Your task to perform on an android device: change the clock display to show seconds Image 0: 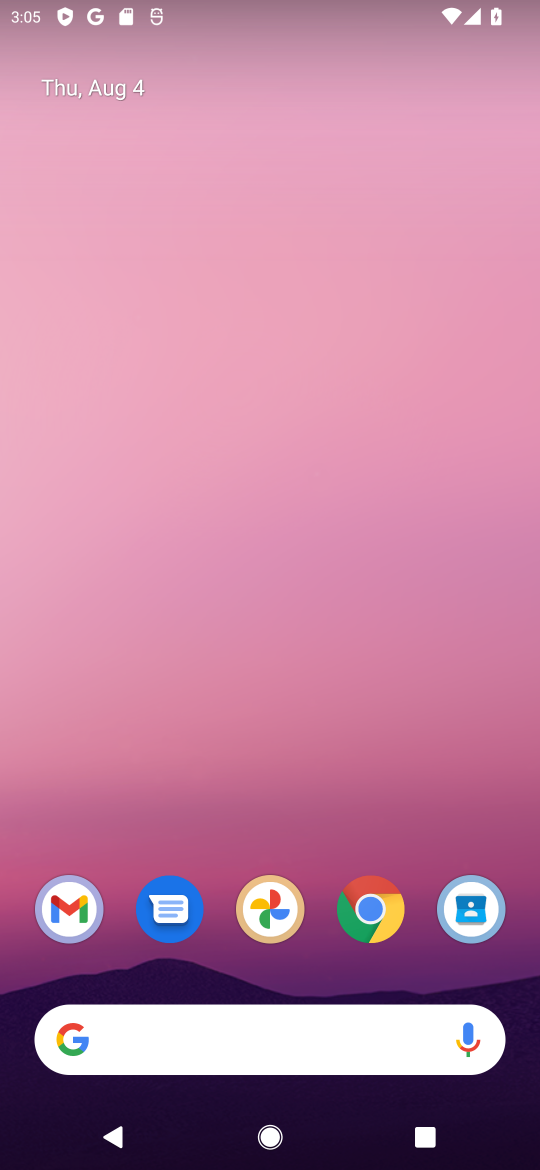
Step 0: drag from (252, 999) to (403, 154)
Your task to perform on an android device: change the clock display to show seconds Image 1: 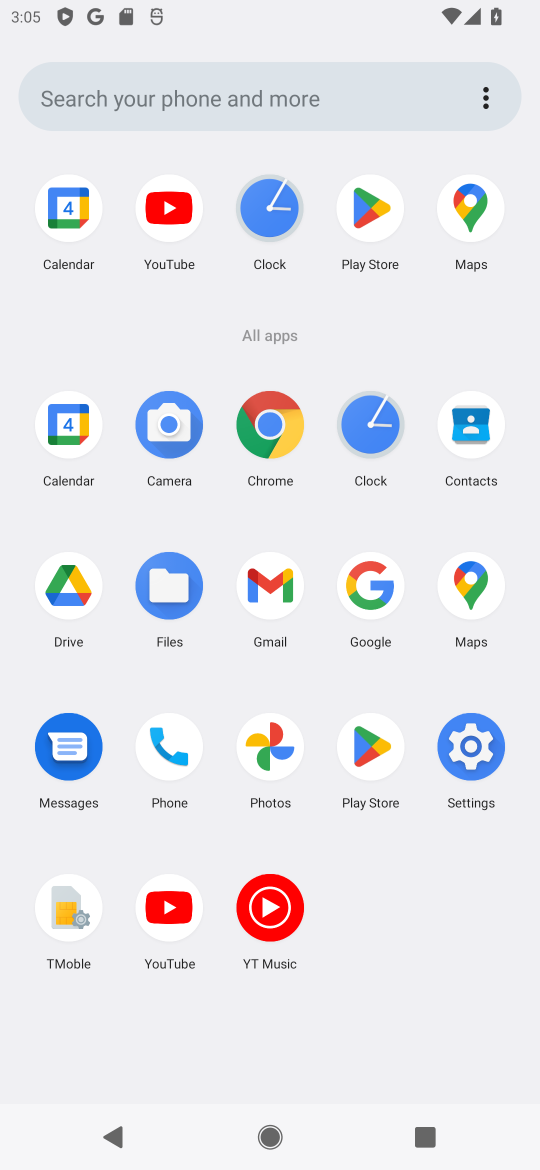
Step 1: click (267, 211)
Your task to perform on an android device: change the clock display to show seconds Image 2: 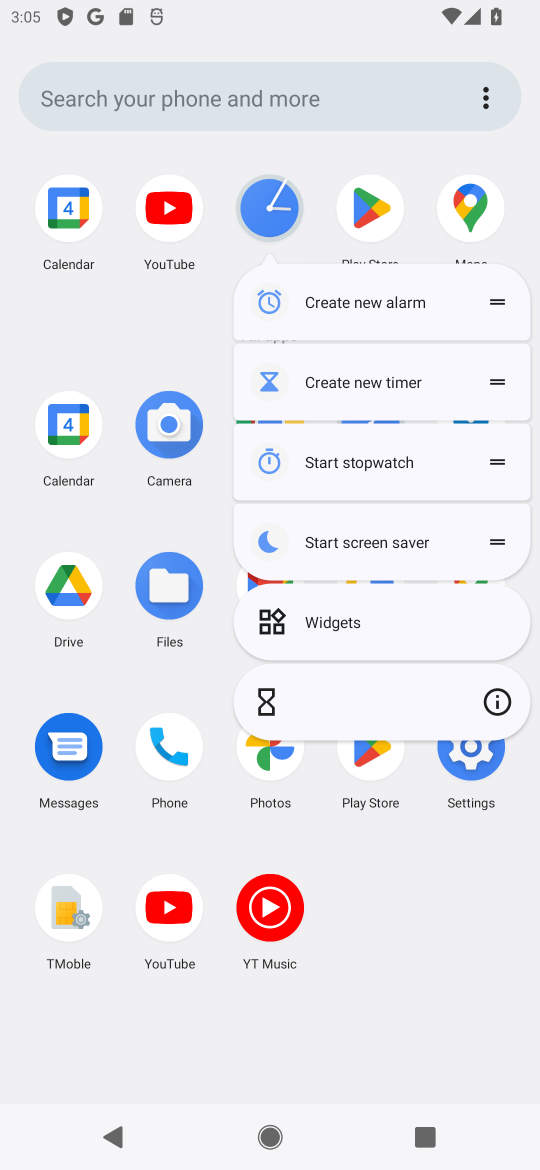
Step 2: click (269, 200)
Your task to perform on an android device: change the clock display to show seconds Image 3: 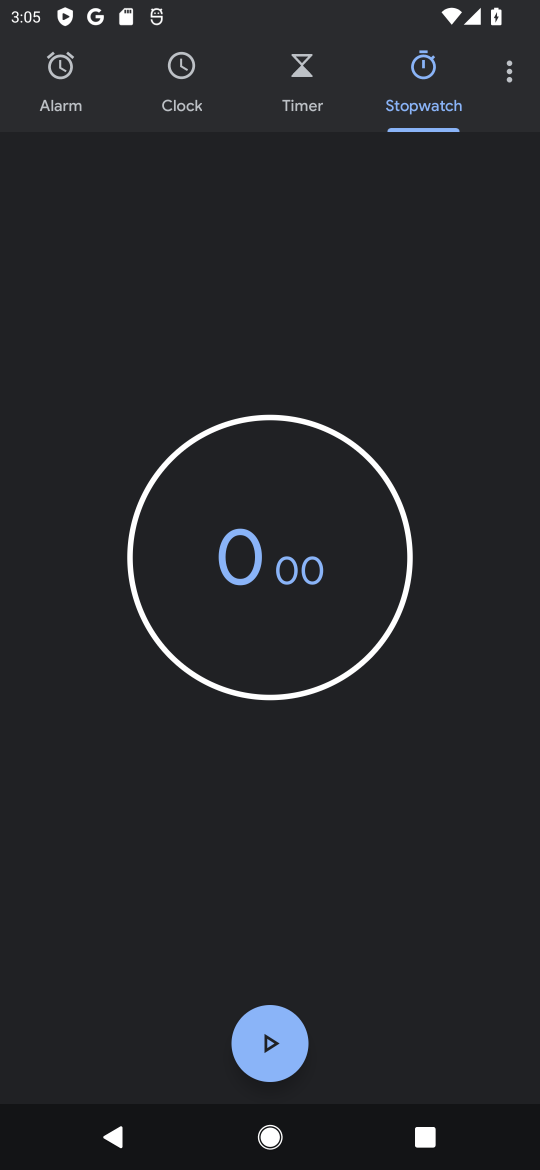
Step 3: click (503, 64)
Your task to perform on an android device: change the clock display to show seconds Image 4: 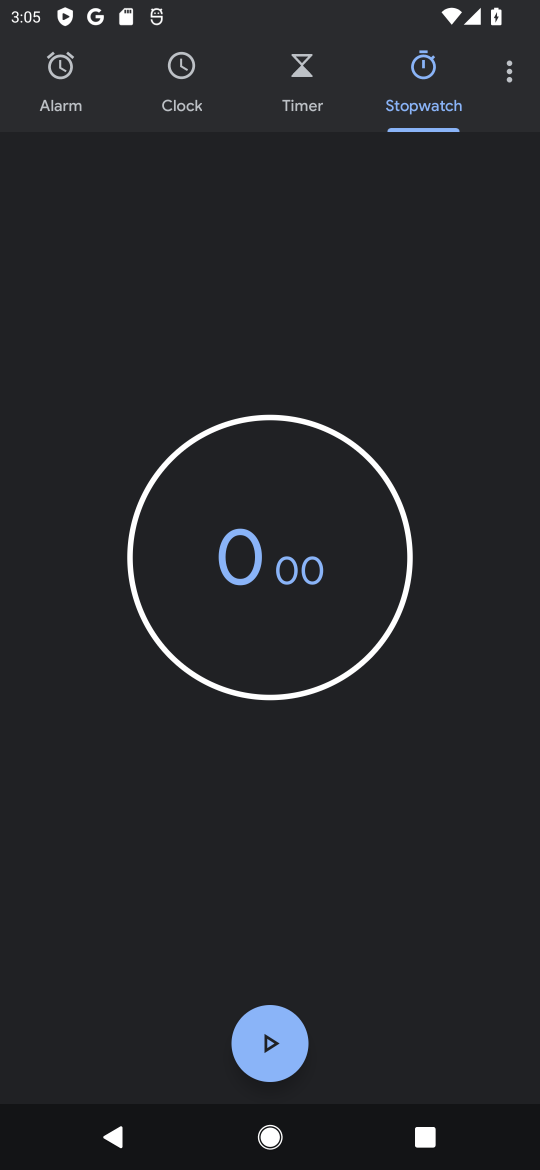
Step 4: click (513, 79)
Your task to perform on an android device: change the clock display to show seconds Image 5: 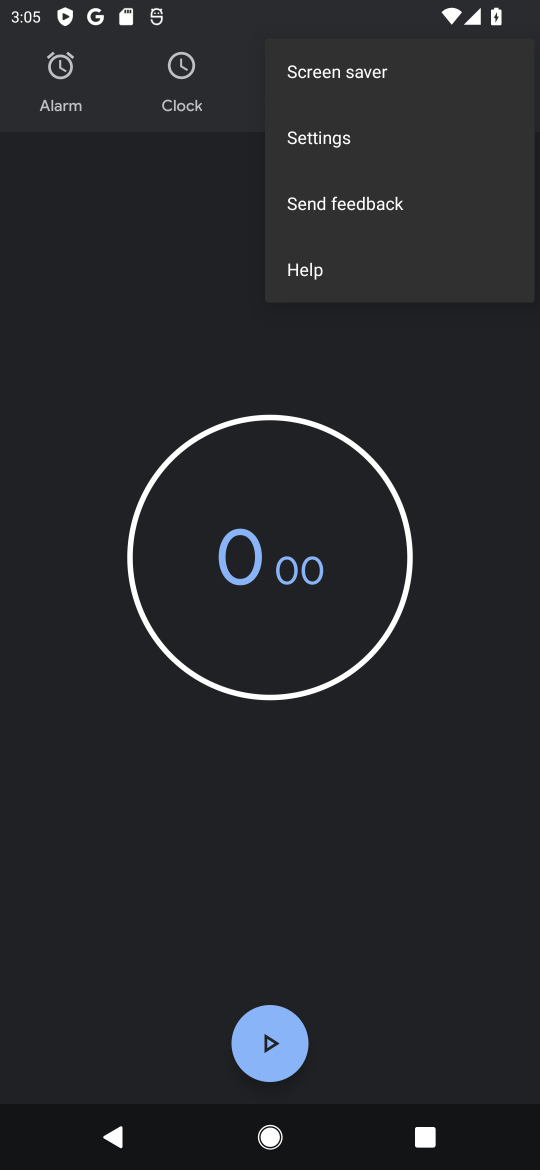
Step 5: click (306, 146)
Your task to perform on an android device: change the clock display to show seconds Image 6: 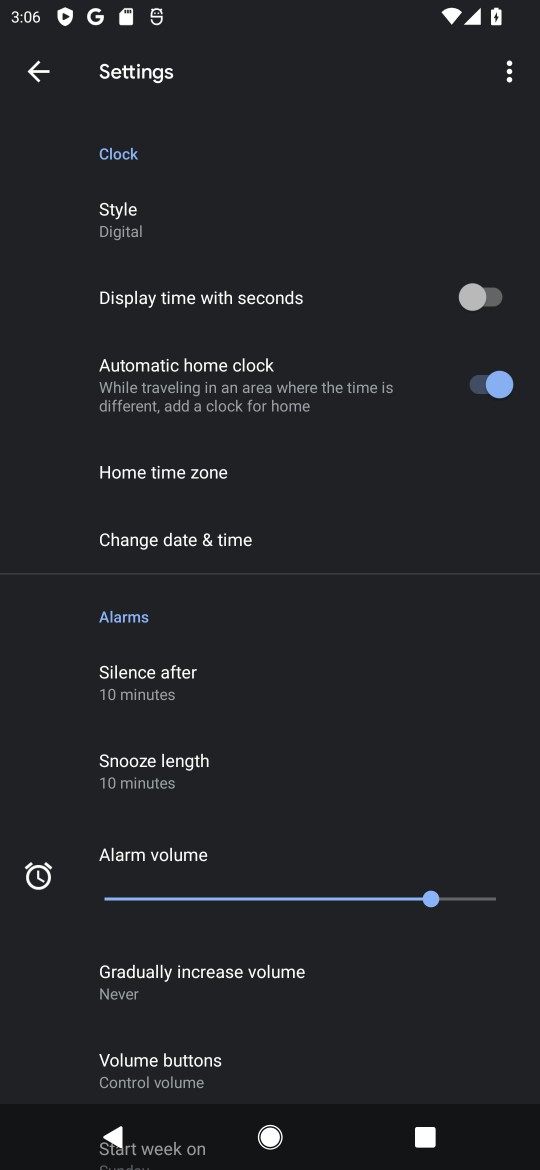
Step 6: click (495, 294)
Your task to perform on an android device: change the clock display to show seconds Image 7: 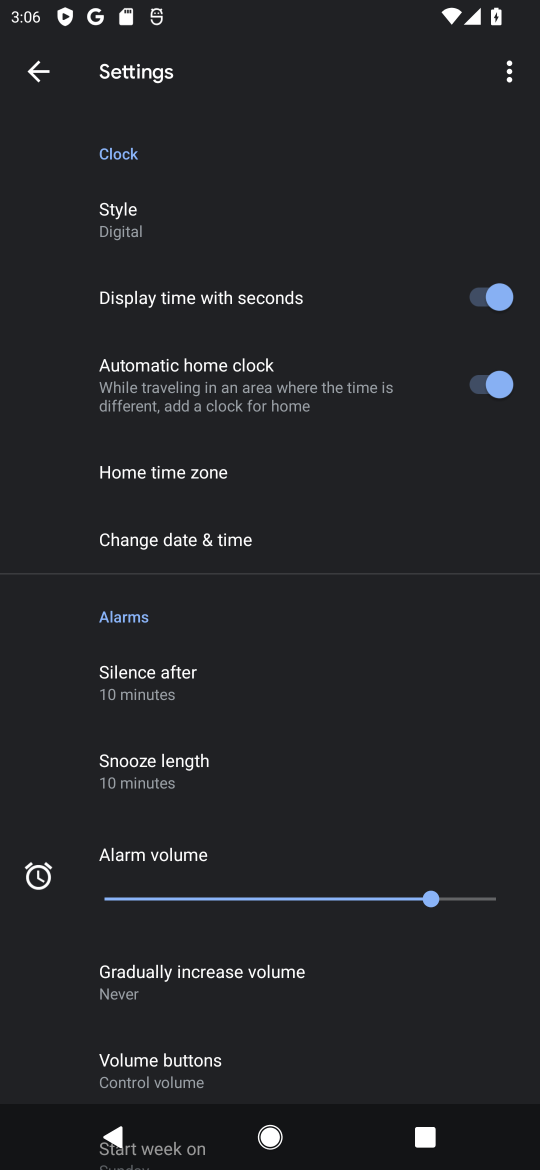
Step 7: task complete